Your task to perform on an android device: toggle priority inbox in the gmail app Image 0: 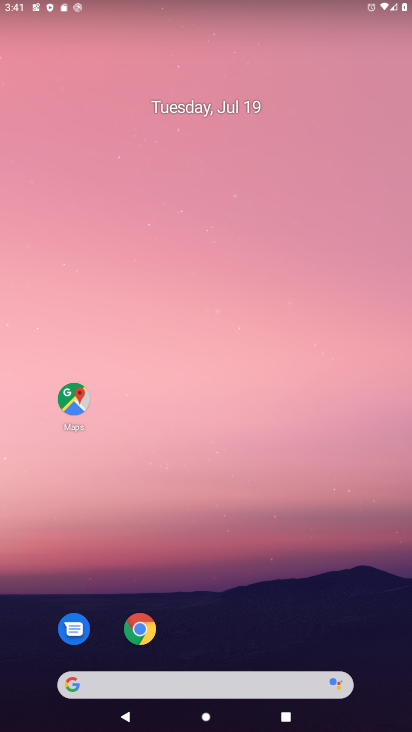
Step 0: drag from (256, 662) to (210, 300)
Your task to perform on an android device: toggle priority inbox in the gmail app Image 1: 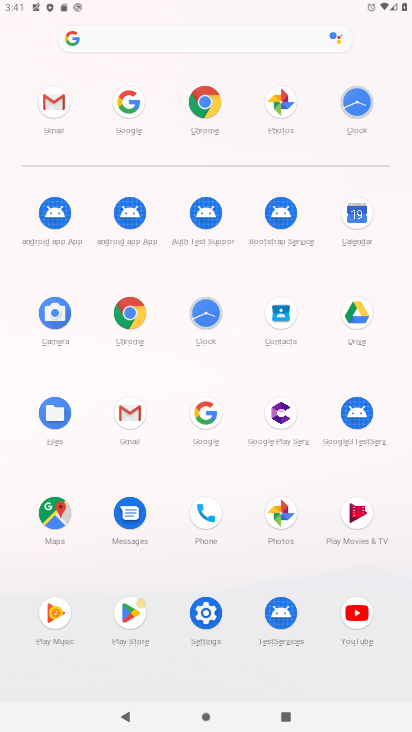
Step 1: click (58, 102)
Your task to perform on an android device: toggle priority inbox in the gmail app Image 2: 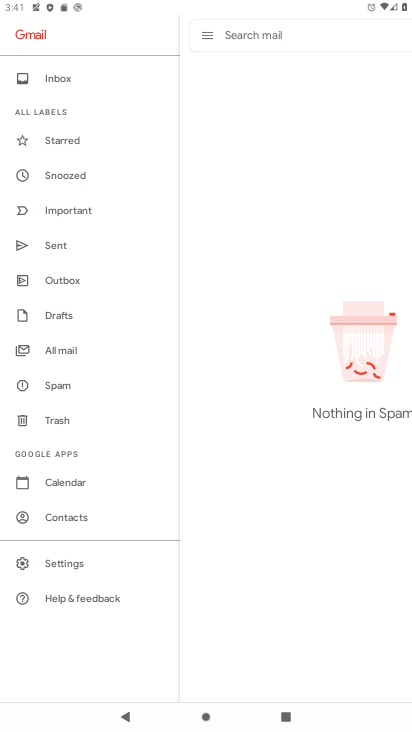
Step 2: click (68, 562)
Your task to perform on an android device: toggle priority inbox in the gmail app Image 3: 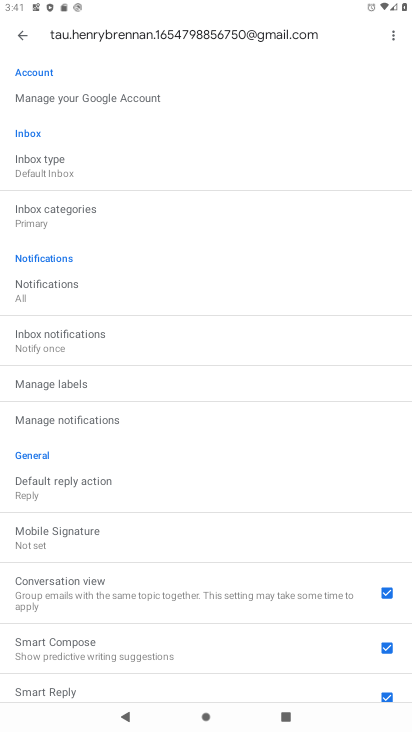
Step 3: click (43, 165)
Your task to perform on an android device: toggle priority inbox in the gmail app Image 4: 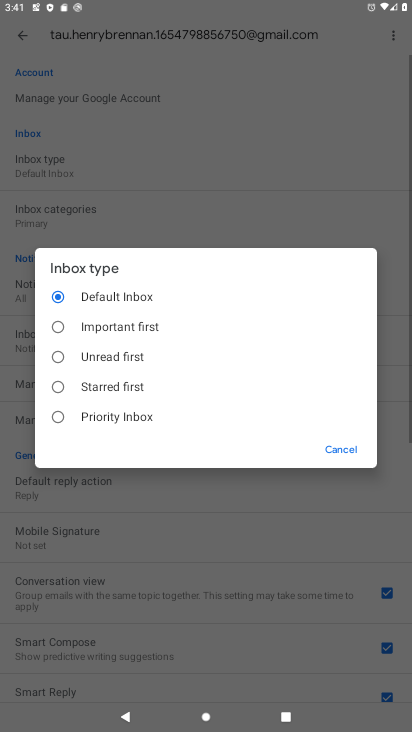
Step 4: click (119, 410)
Your task to perform on an android device: toggle priority inbox in the gmail app Image 5: 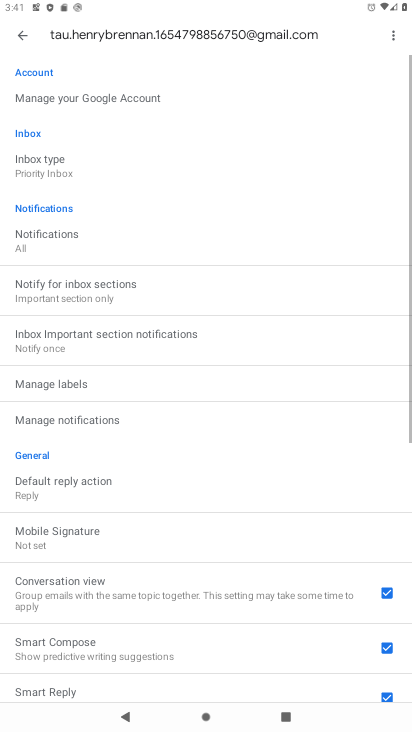
Step 5: task complete